Your task to perform on an android device: star an email in the gmail app Image 0: 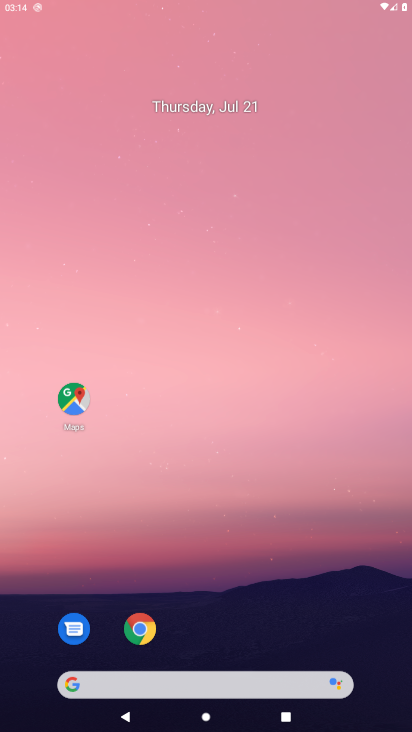
Step 0: click (258, 90)
Your task to perform on an android device: star an email in the gmail app Image 1: 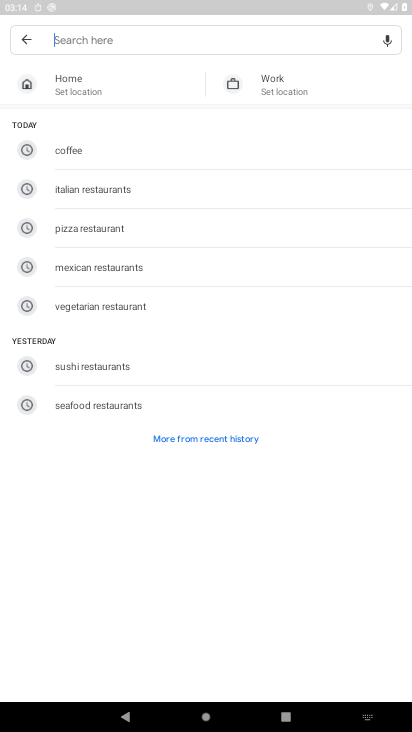
Step 1: press home button
Your task to perform on an android device: star an email in the gmail app Image 2: 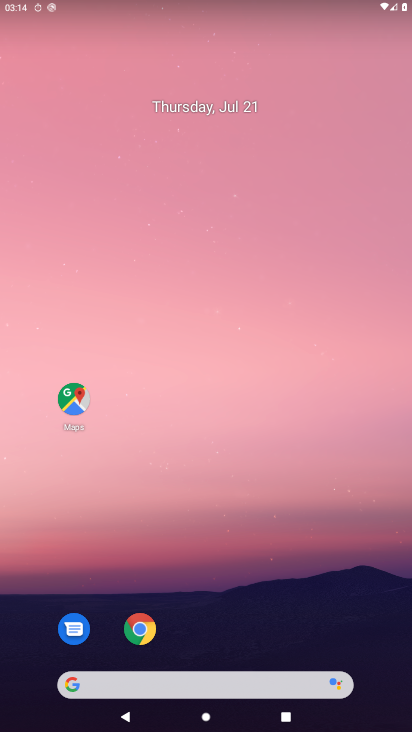
Step 2: drag from (33, 661) to (196, 256)
Your task to perform on an android device: star an email in the gmail app Image 3: 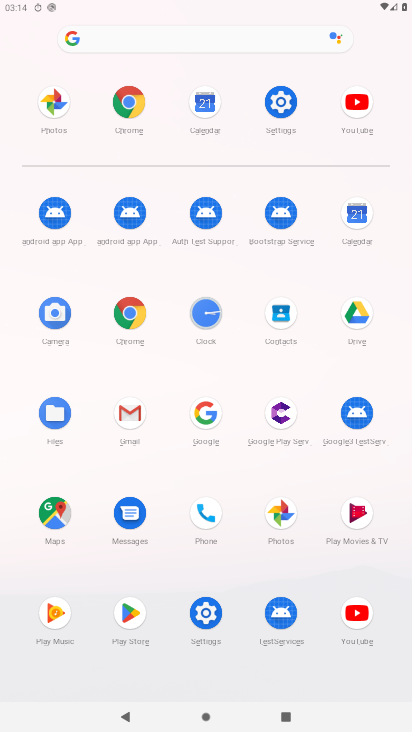
Step 3: click (133, 419)
Your task to perform on an android device: star an email in the gmail app Image 4: 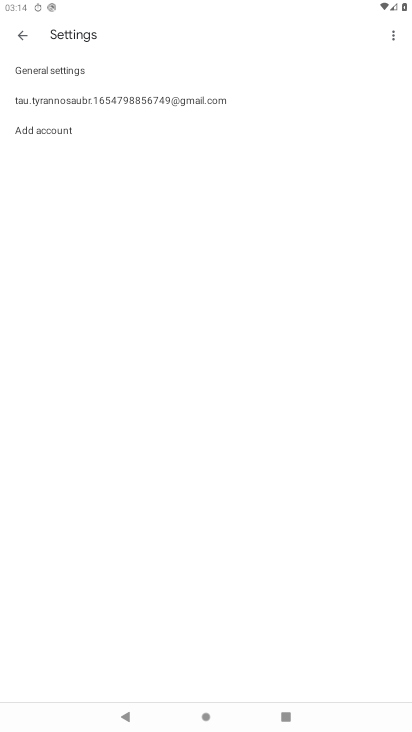
Step 4: click (11, 28)
Your task to perform on an android device: star an email in the gmail app Image 5: 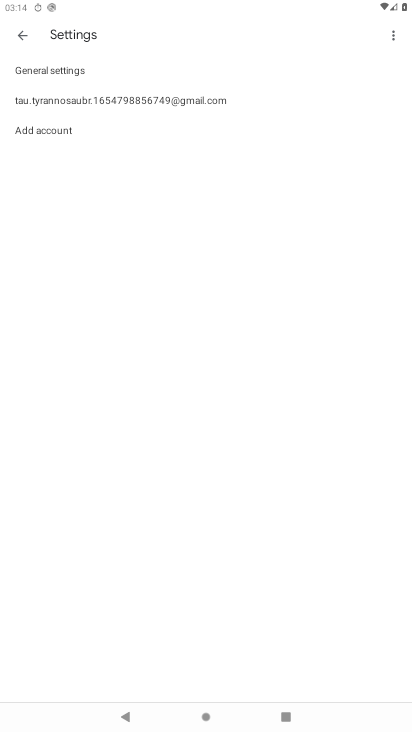
Step 5: click (17, 37)
Your task to perform on an android device: star an email in the gmail app Image 6: 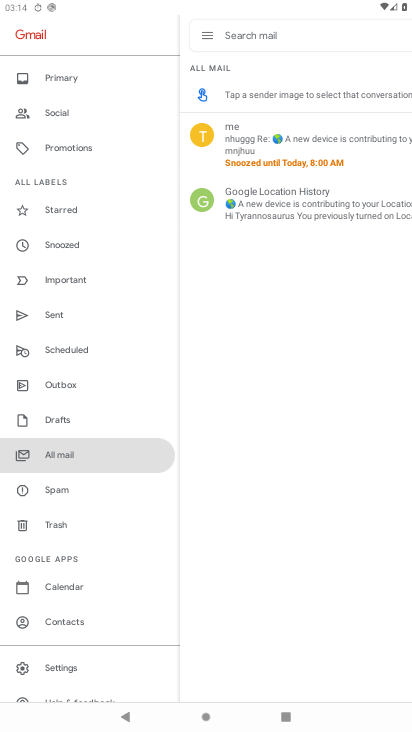
Step 6: click (61, 199)
Your task to perform on an android device: star an email in the gmail app Image 7: 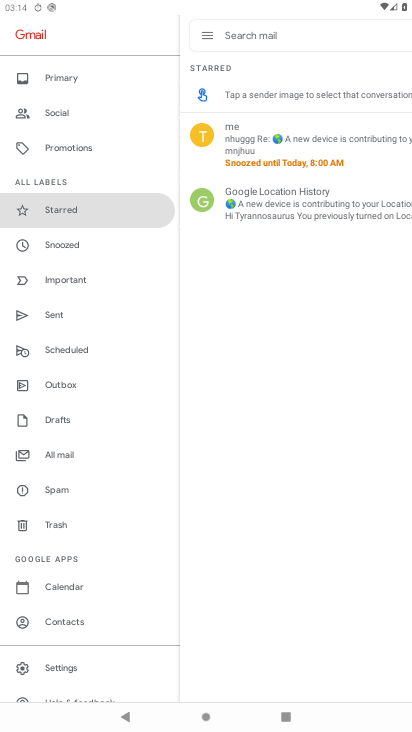
Step 7: task complete